Your task to perform on an android device: turn on wifi Image 0: 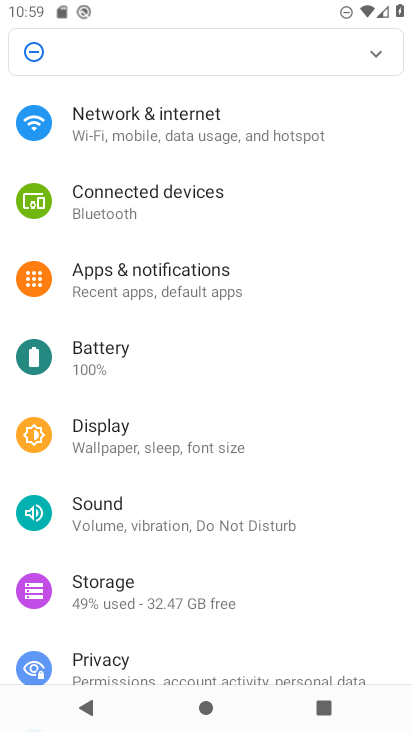
Step 0: press home button
Your task to perform on an android device: turn on wifi Image 1: 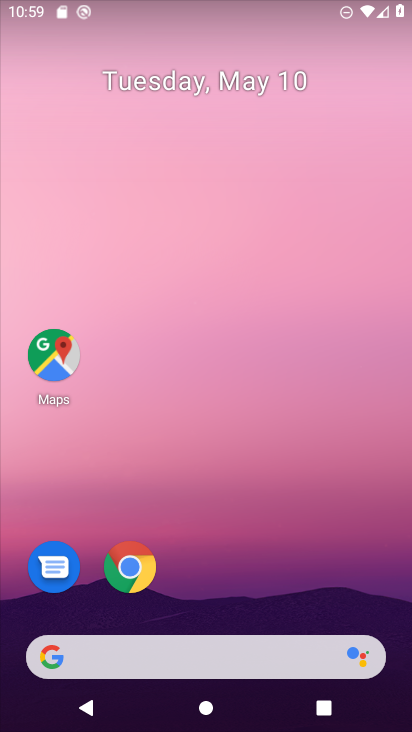
Step 1: drag from (227, 583) to (226, 107)
Your task to perform on an android device: turn on wifi Image 2: 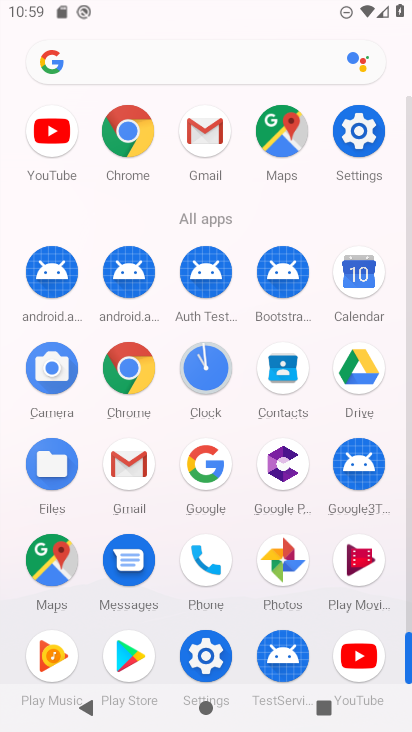
Step 2: click (367, 151)
Your task to perform on an android device: turn on wifi Image 3: 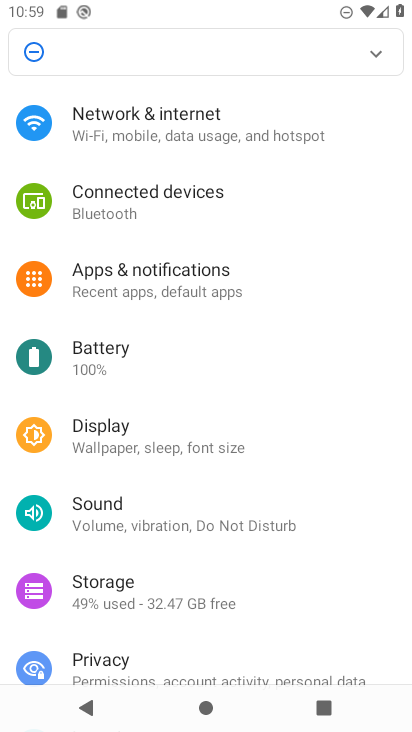
Step 3: click (192, 107)
Your task to perform on an android device: turn on wifi Image 4: 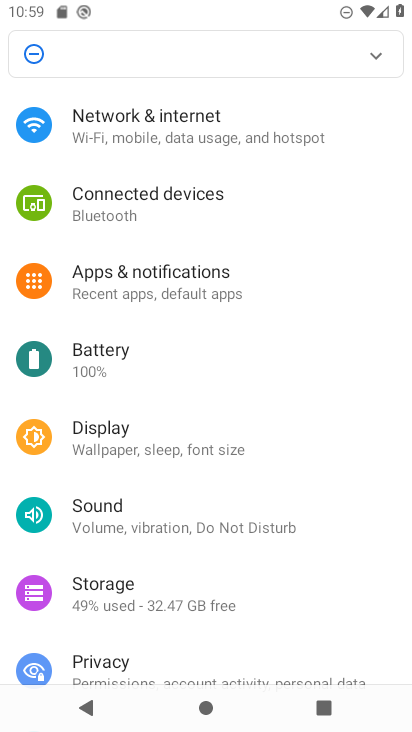
Step 4: click (200, 133)
Your task to perform on an android device: turn on wifi Image 5: 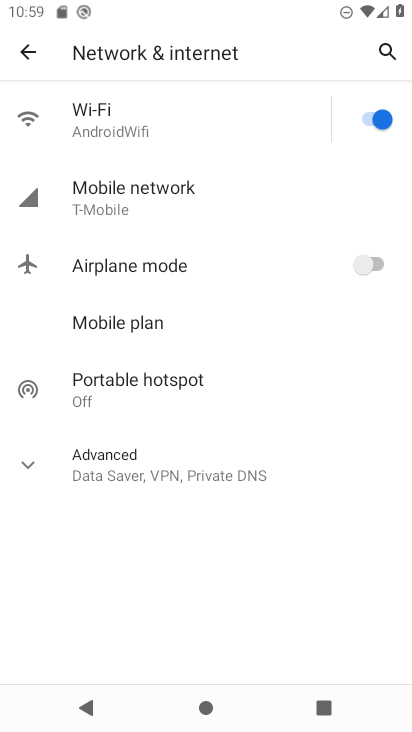
Step 5: task complete